Your task to perform on an android device: See recent photos Image 0: 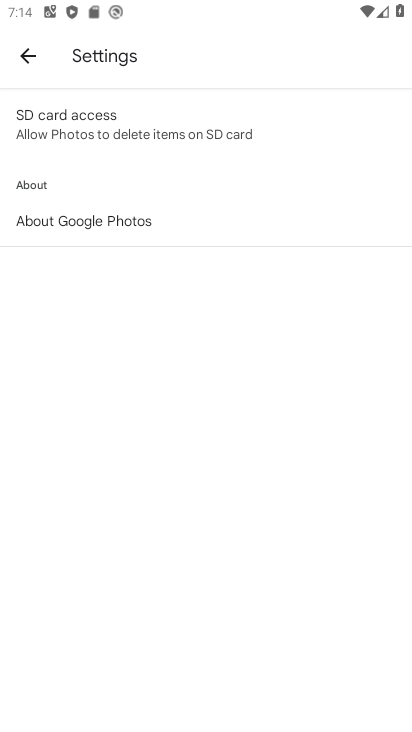
Step 0: press home button
Your task to perform on an android device: See recent photos Image 1: 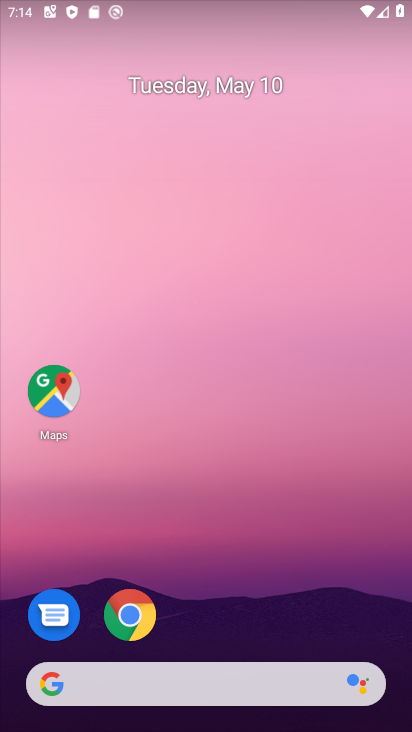
Step 1: drag from (218, 586) to (122, 147)
Your task to perform on an android device: See recent photos Image 2: 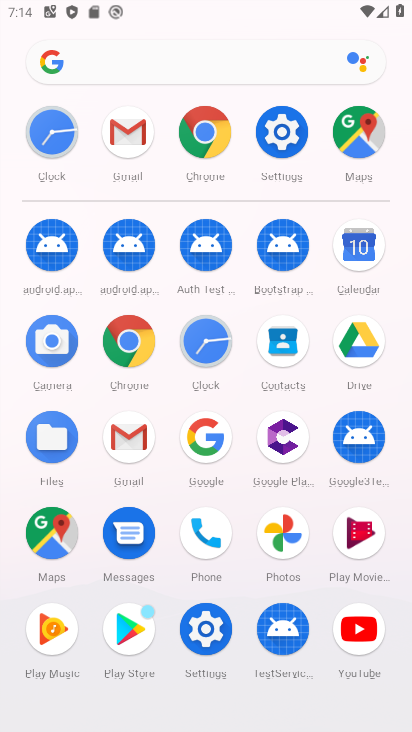
Step 2: click (279, 521)
Your task to perform on an android device: See recent photos Image 3: 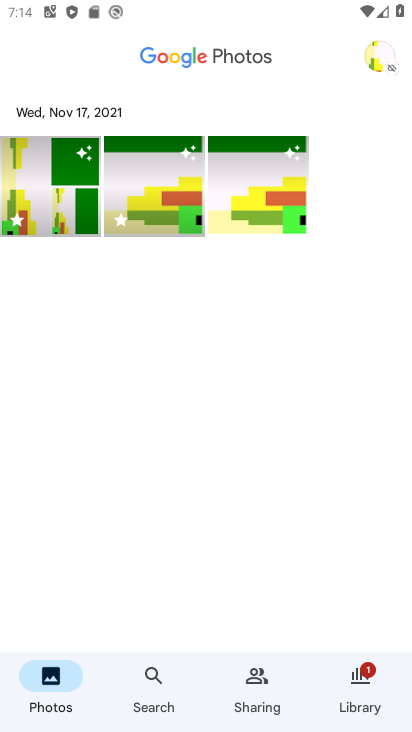
Step 3: task complete